Your task to perform on an android device: toggle data saver in the chrome app Image 0: 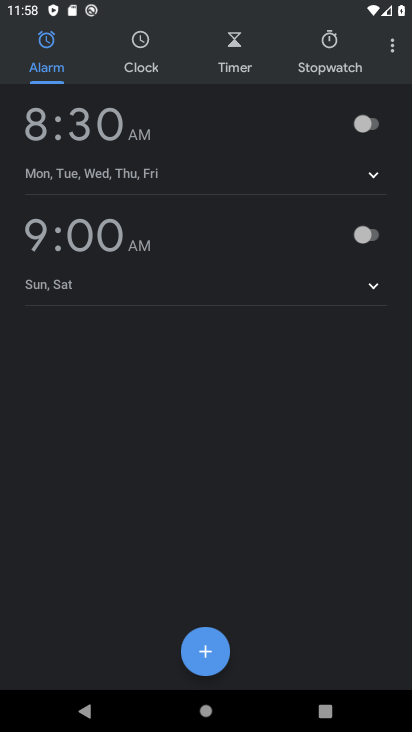
Step 0: press home button
Your task to perform on an android device: toggle data saver in the chrome app Image 1: 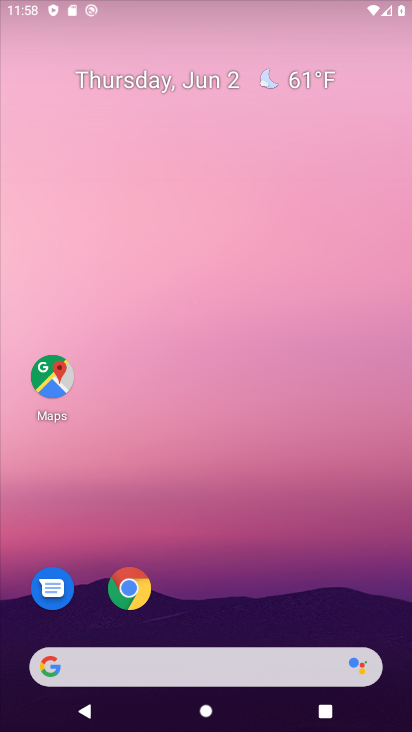
Step 1: drag from (246, 546) to (288, 122)
Your task to perform on an android device: toggle data saver in the chrome app Image 2: 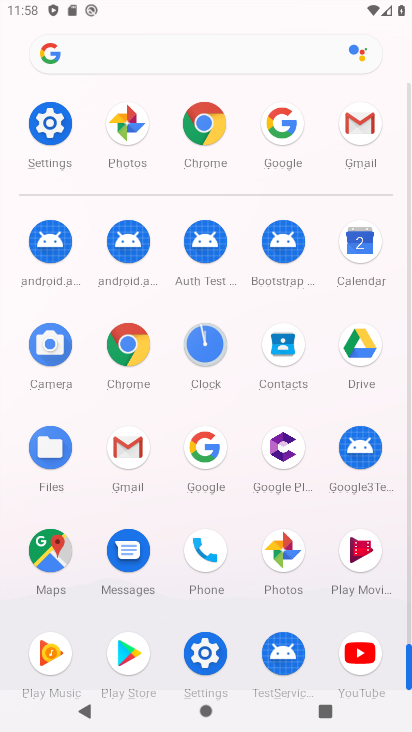
Step 2: drag from (243, 196) to (237, 83)
Your task to perform on an android device: toggle data saver in the chrome app Image 3: 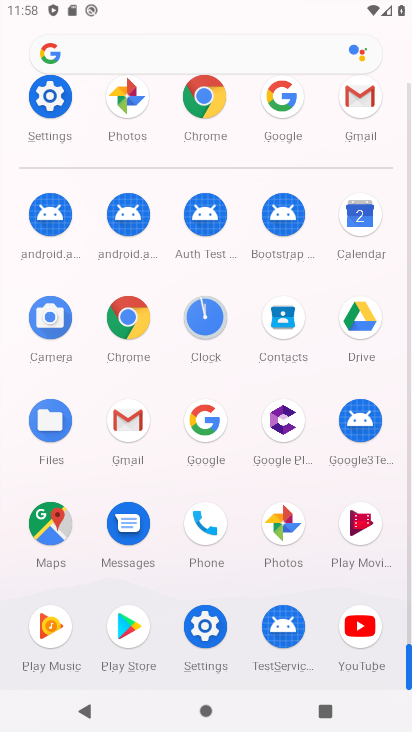
Step 3: click (131, 337)
Your task to perform on an android device: toggle data saver in the chrome app Image 4: 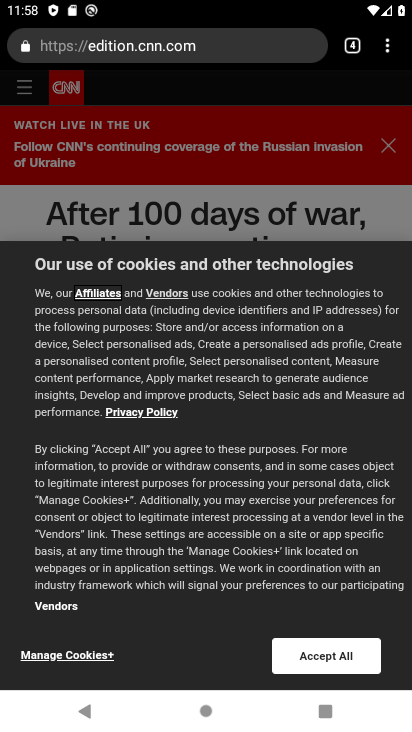
Step 4: click (391, 51)
Your task to perform on an android device: toggle data saver in the chrome app Image 5: 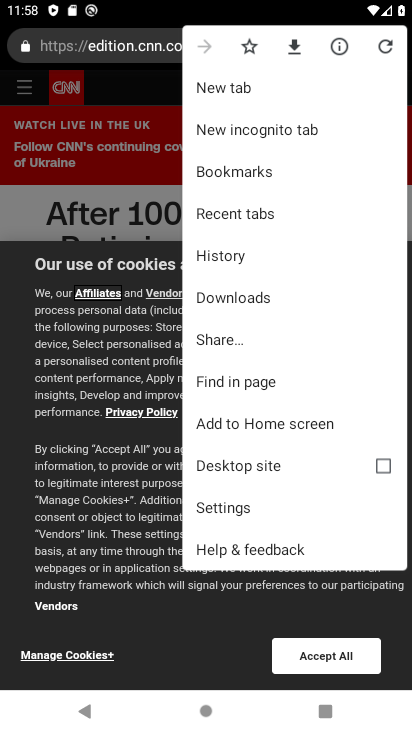
Step 5: drag from (309, 406) to (319, 115)
Your task to perform on an android device: toggle data saver in the chrome app Image 6: 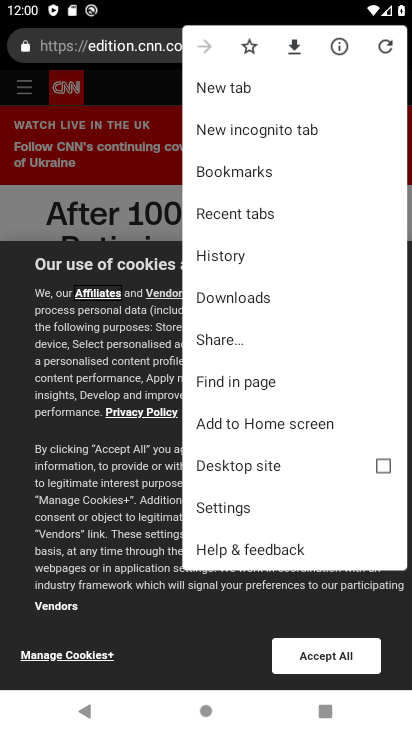
Step 6: click (268, 516)
Your task to perform on an android device: toggle data saver in the chrome app Image 7: 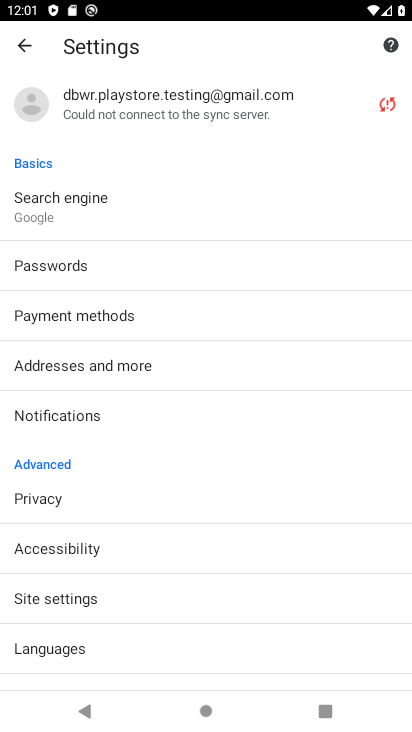
Step 7: drag from (233, 592) to (239, 268)
Your task to perform on an android device: toggle data saver in the chrome app Image 8: 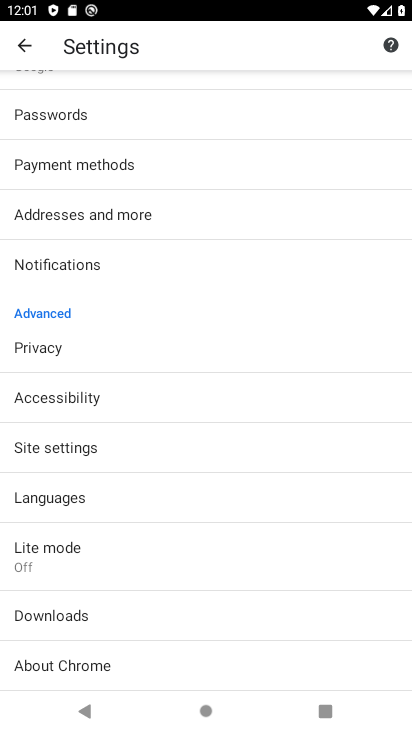
Step 8: click (129, 565)
Your task to perform on an android device: toggle data saver in the chrome app Image 9: 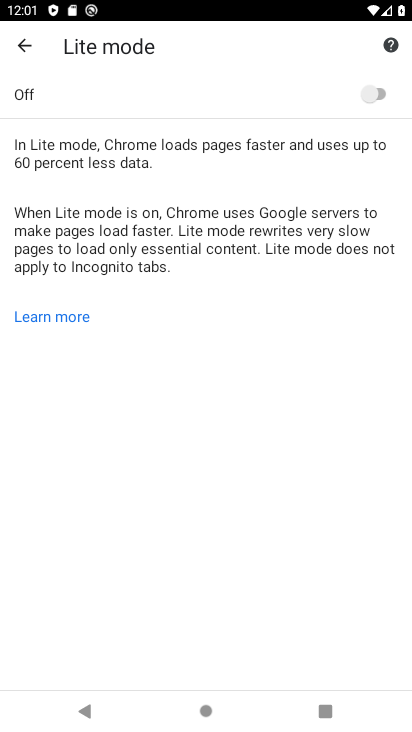
Step 9: click (369, 100)
Your task to perform on an android device: toggle data saver in the chrome app Image 10: 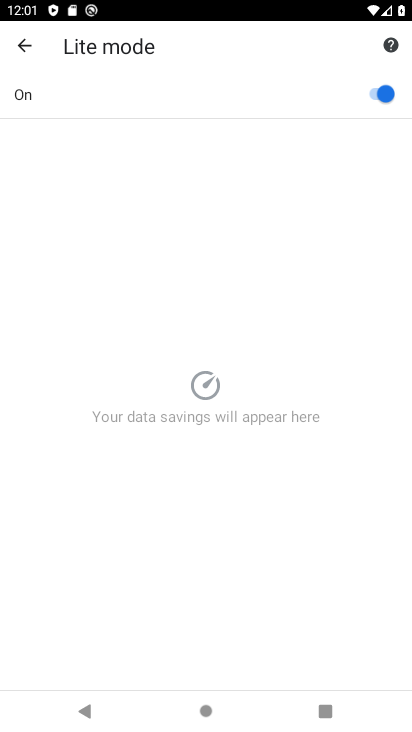
Step 10: task complete